Your task to perform on an android device: Do I have any events tomorrow? Image 0: 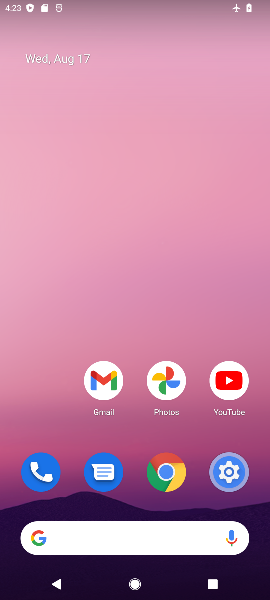
Step 0: drag from (134, 437) to (139, 170)
Your task to perform on an android device: Do I have any events tomorrow? Image 1: 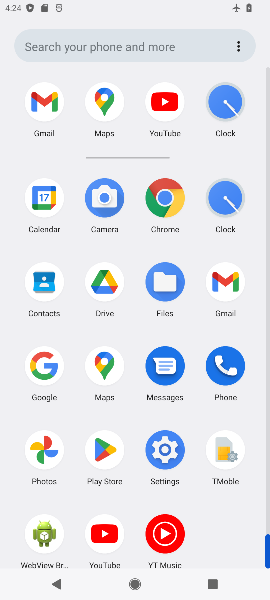
Step 1: click (47, 222)
Your task to perform on an android device: Do I have any events tomorrow? Image 2: 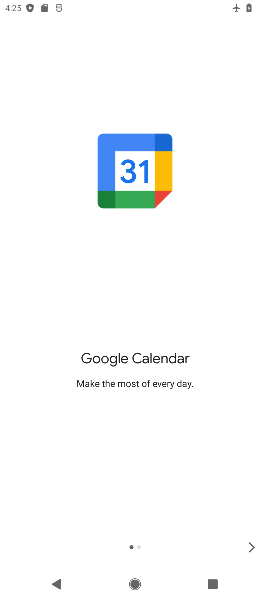
Step 2: click (251, 550)
Your task to perform on an android device: Do I have any events tomorrow? Image 3: 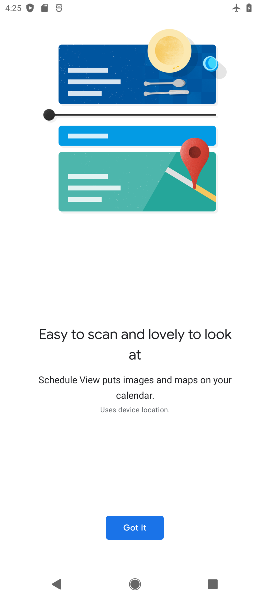
Step 3: click (128, 533)
Your task to perform on an android device: Do I have any events tomorrow? Image 4: 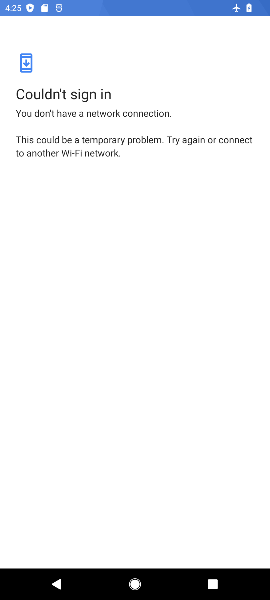
Step 4: press back button
Your task to perform on an android device: Do I have any events tomorrow? Image 5: 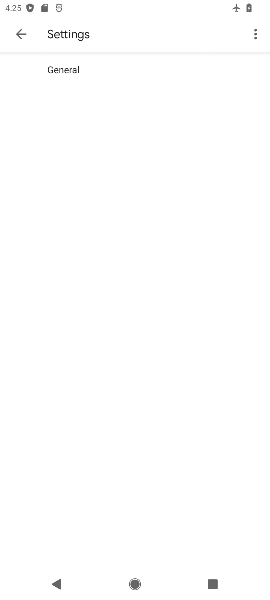
Step 5: press back button
Your task to perform on an android device: Do I have any events tomorrow? Image 6: 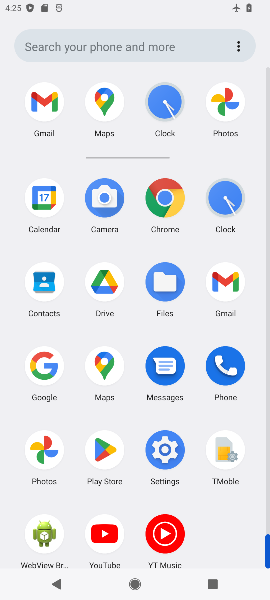
Step 6: click (34, 215)
Your task to perform on an android device: Do I have any events tomorrow? Image 7: 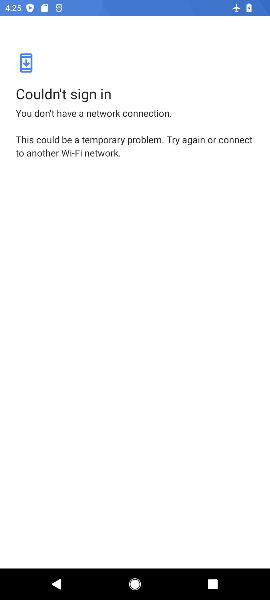
Step 7: task complete